Your task to perform on an android device: change the clock display to analog Image 0: 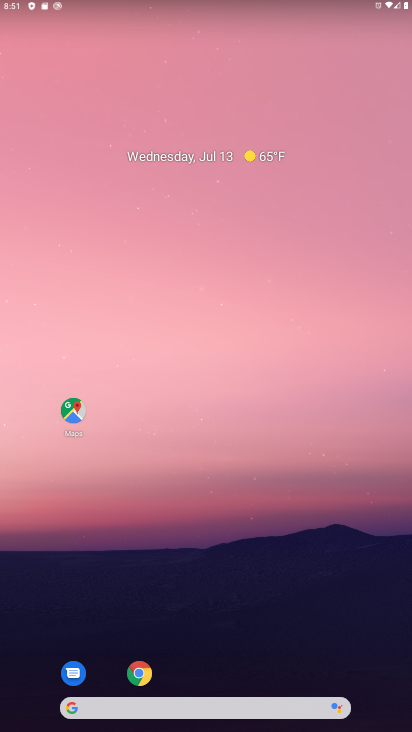
Step 0: drag from (211, 709) to (212, 245)
Your task to perform on an android device: change the clock display to analog Image 1: 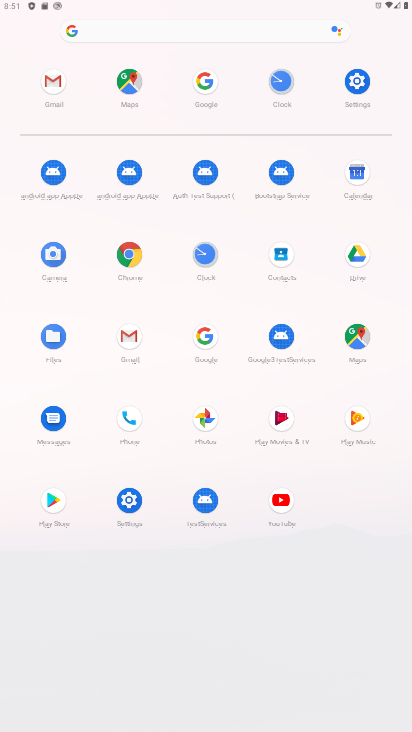
Step 1: click (281, 78)
Your task to perform on an android device: change the clock display to analog Image 2: 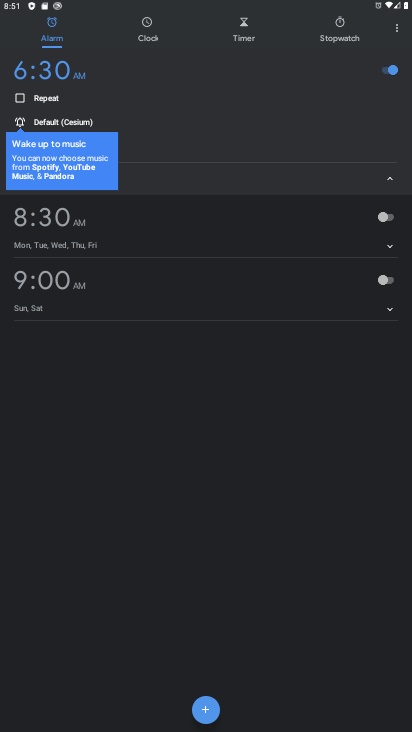
Step 2: click (401, 30)
Your task to perform on an android device: change the clock display to analog Image 3: 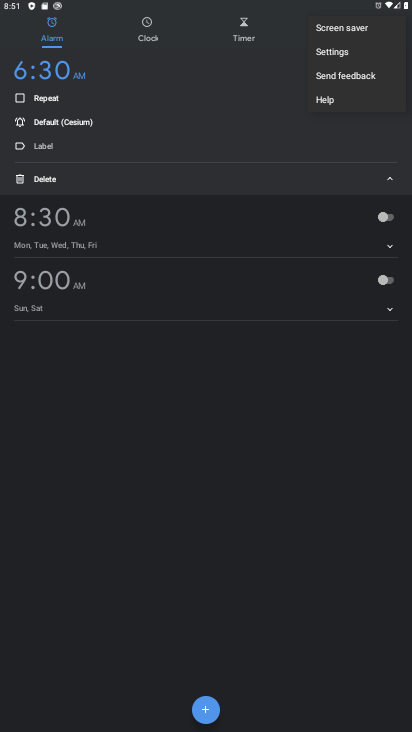
Step 3: click (346, 57)
Your task to perform on an android device: change the clock display to analog Image 4: 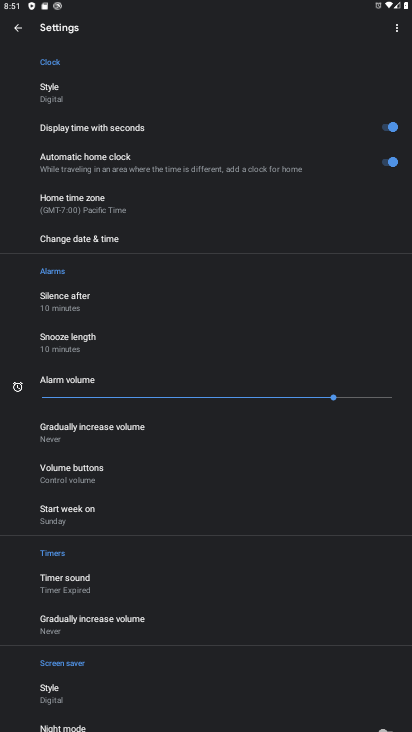
Step 4: click (59, 96)
Your task to perform on an android device: change the clock display to analog Image 5: 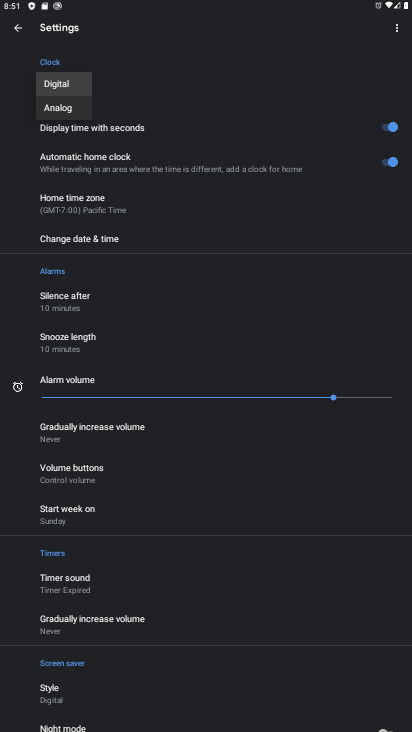
Step 5: click (65, 111)
Your task to perform on an android device: change the clock display to analog Image 6: 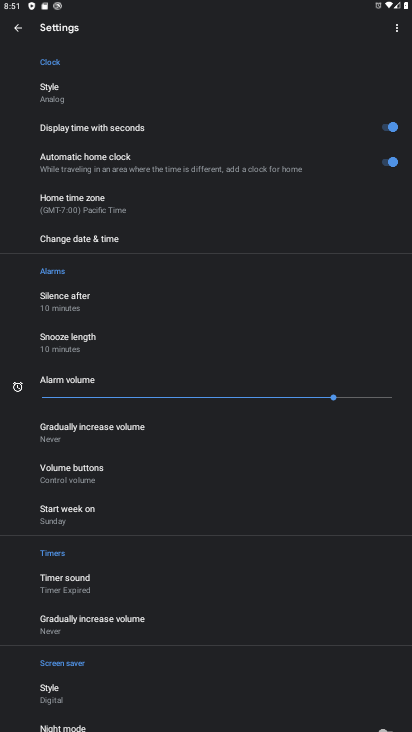
Step 6: task complete